Your task to perform on an android device: Open maps Image 0: 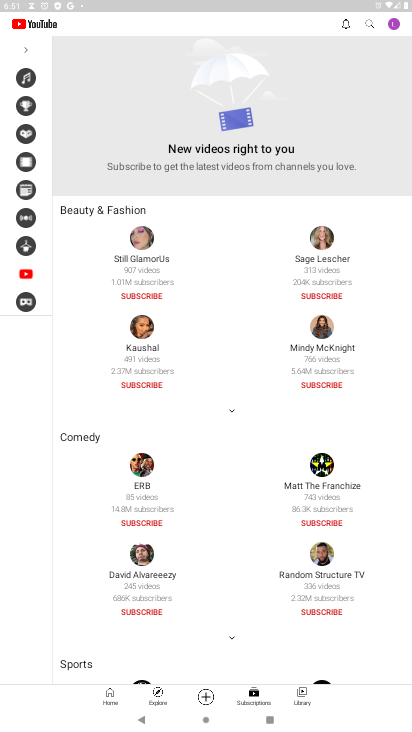
Step 0: press home button
Your task to perform on an android device: Open maps Image 1: 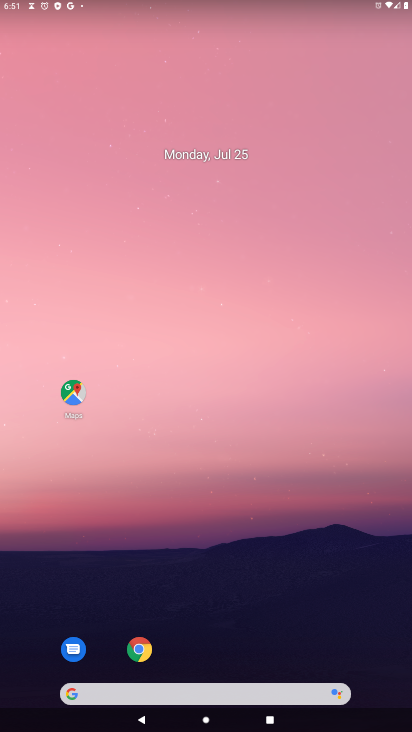
Step 1: drag from (280, 623) to (402, 74)
Your task to perform on an android device: Open maps Image 2: 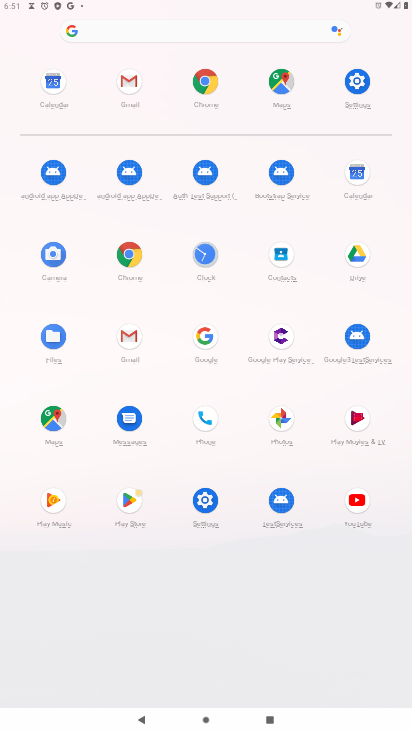
Step 2: click (55, 423)
Your task to perform on an android device: Open maps Image 3: 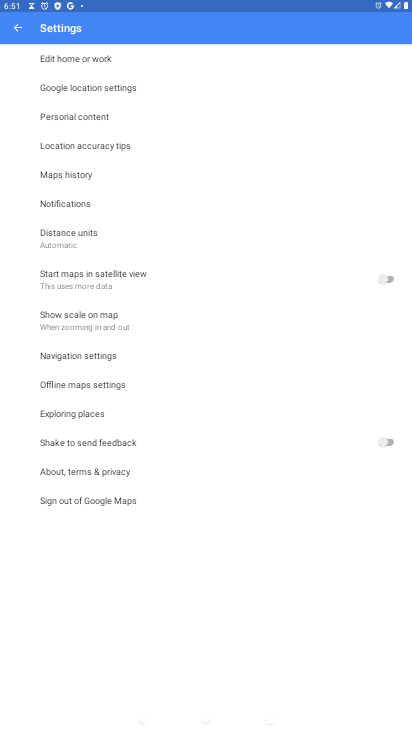
Step 3: task complete